Your task to perform on an android device: Search for the new Nintendo switch on Best Buy Image 0: 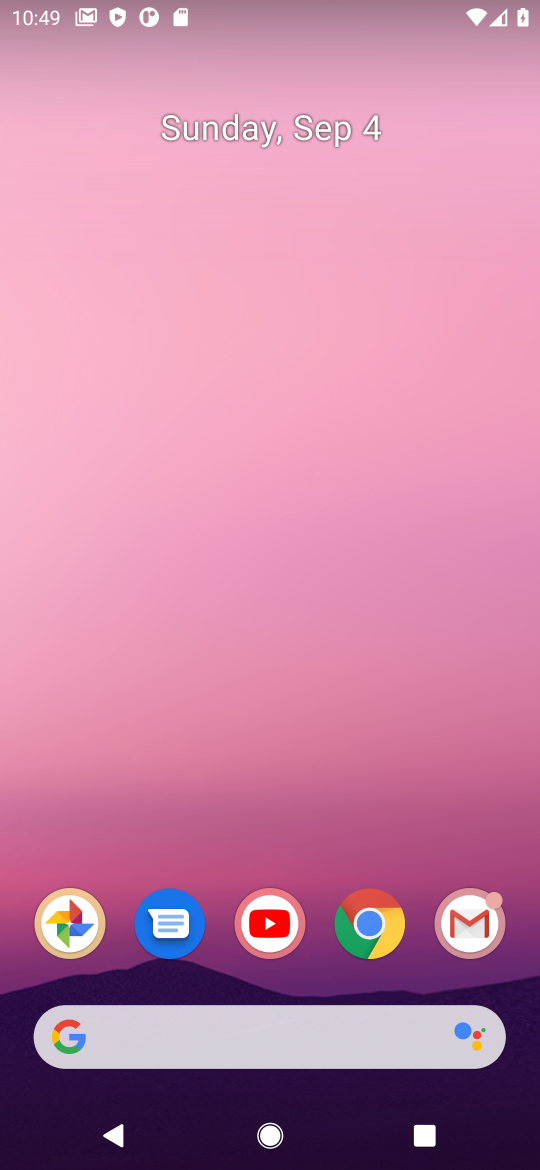
Step 0: click (376, 907)
Your task to perform on an android device: Search for the new Nintendo switch on Best Buy Image 1: 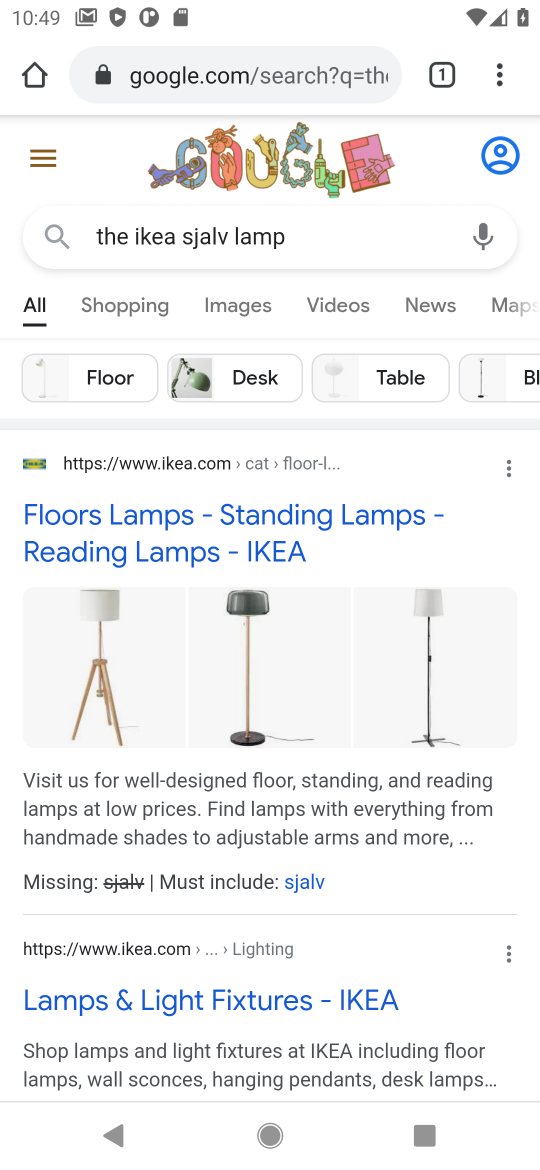
Step 1: click (322, 74)
Your task to perform on an android device: Search for the new Nintendo switch on Best Buy Image 2: 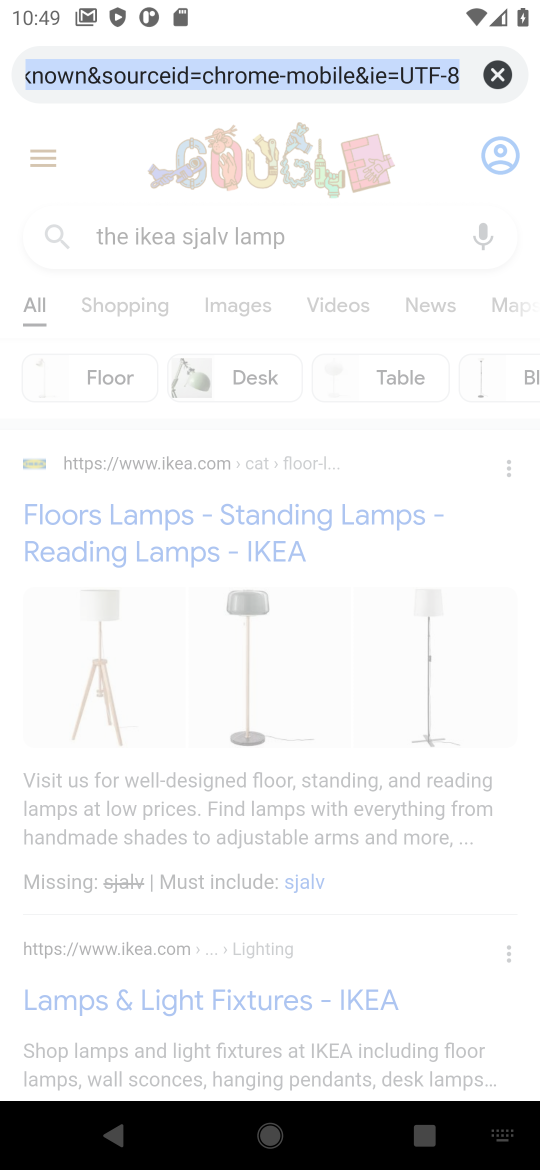
Step 2: click (497, 74)
Your task to perform on an android device: Search for the new Nintendo switch on Best Buy Image 3: 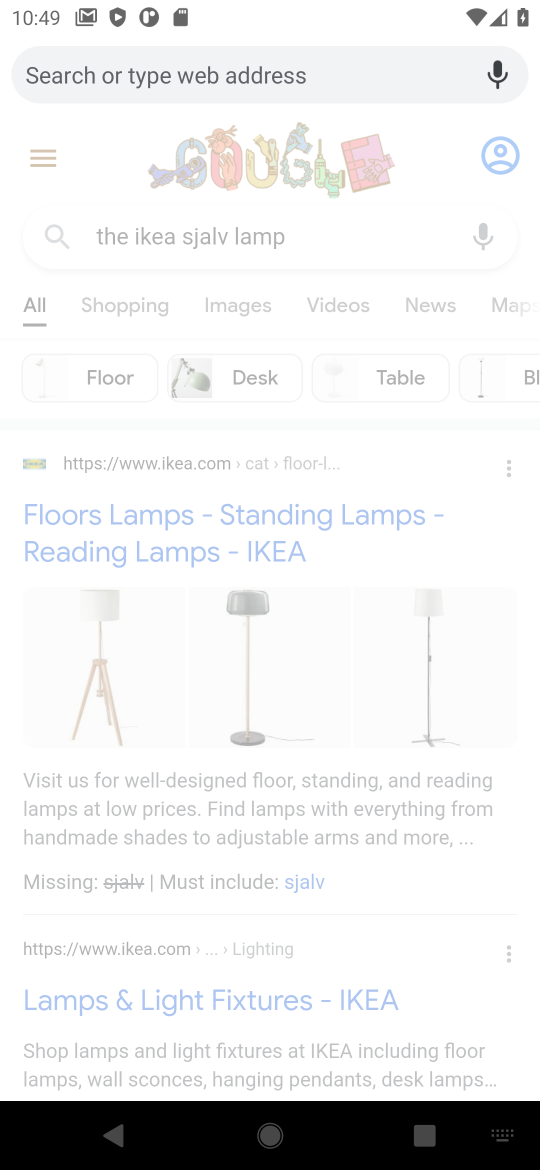
Step 3: type " the new Nintendo switch on Best Buy"
Your task to perform on an android device: Search for the new Nintendo switch on Best Buy Image 4: 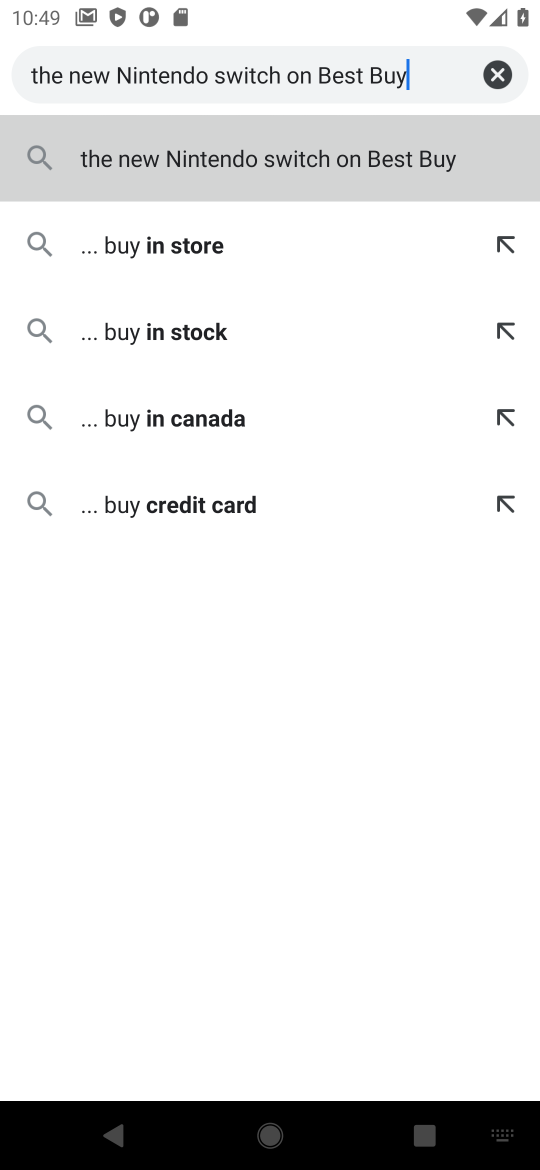
Step 4: click (395, 157)
Your task to perform on an android device: Search for the new Nintendo switch on Best Buy Image 5: 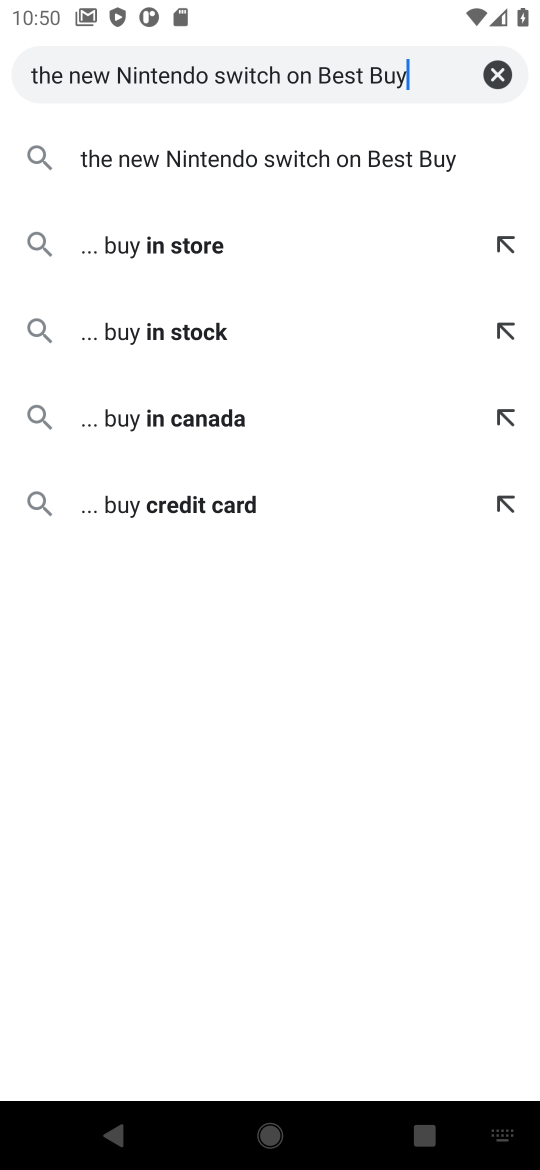
Step 5: click (395, 155)
Your task to perform on an android device: Search for the new Nintendo switch on Best Buy Image 6: 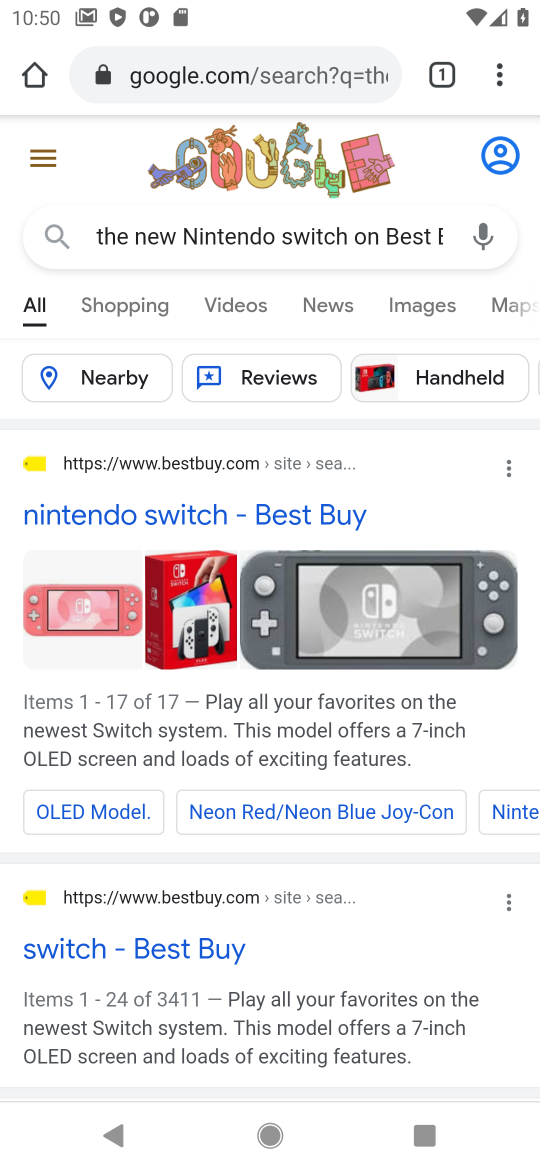
Step 6: task complete